Your task to perform on an android device: change the clock display to analog Image 0: 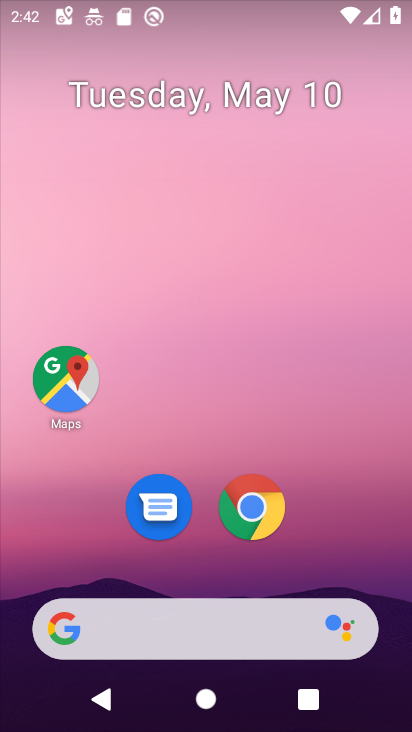
Step 0: drag from (212, 506) to (244, 213)
Your task to perform on an android device: change the clock display to analog Image 1: 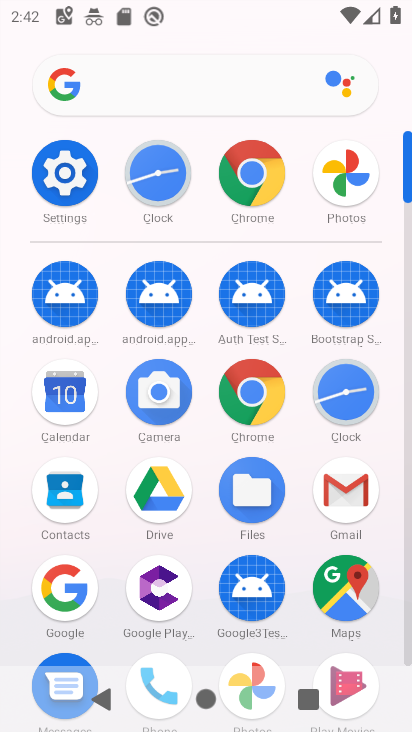
Step 1: click (346, 391)
Your task to perform on an android device: change the clock display to analog Image 2: 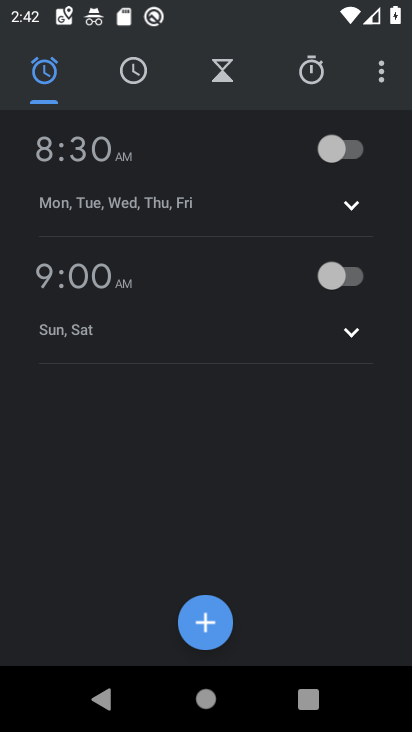
Step 2: click (380, 74)
Your task to perform on an android device: change the clock display to analog Image 3: 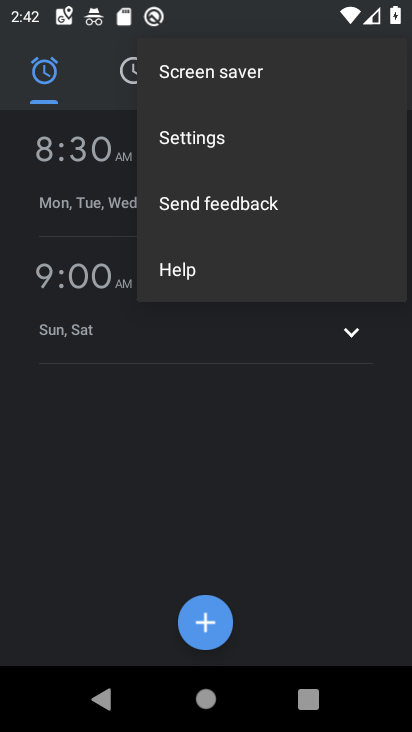
Step 3: click (229, 139)
Your task to perform on an android device: change the clock display to analog Image 4: 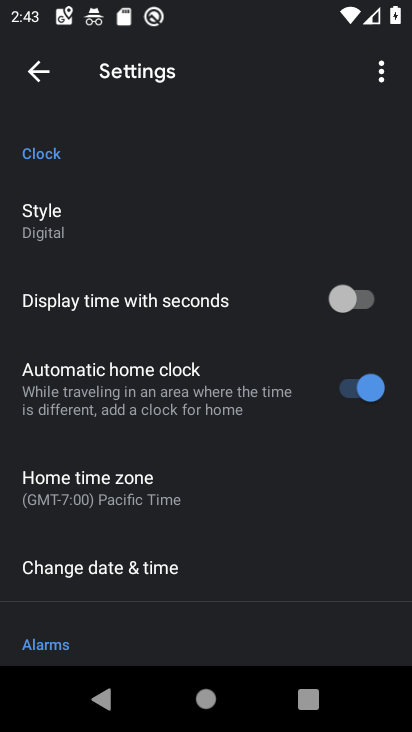
Step 4: click (57, 224)
Your task to perform on an android device: change the clock display to analog Image 5: 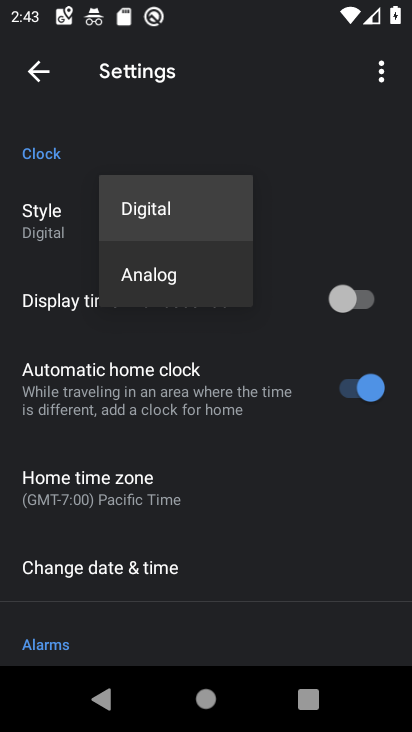
Step 5: click (167, 283)
Your task to perform on an android device: change the clock display to analog Image 6: 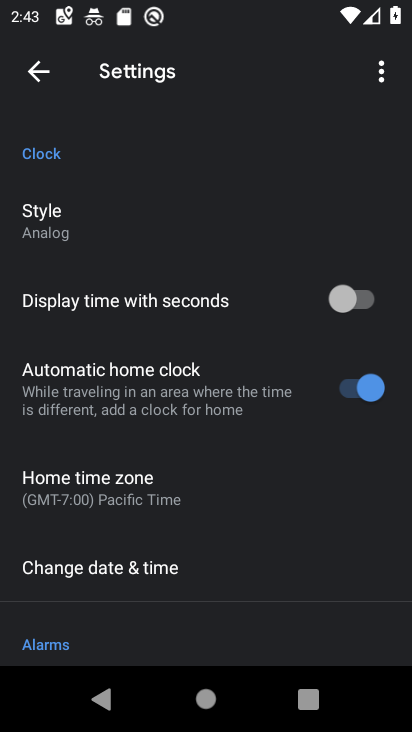
Step 6: task complete